Your task to perform on an android device: turn pop-ups on in chrome Image 0: 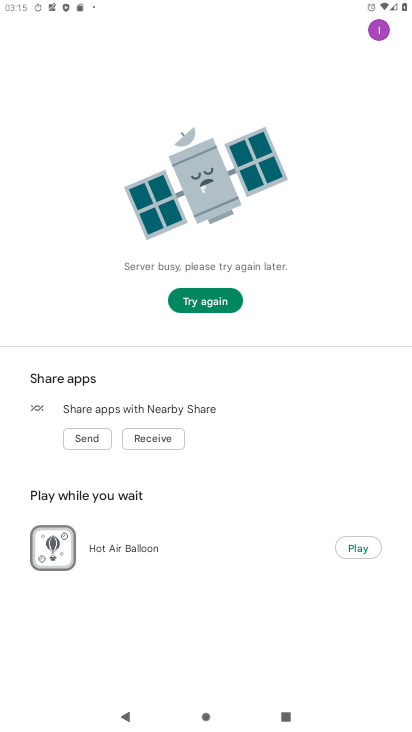
Step 0: press home button
Your task to perform on an android device: turn pop-ups on in chrome Image 1: 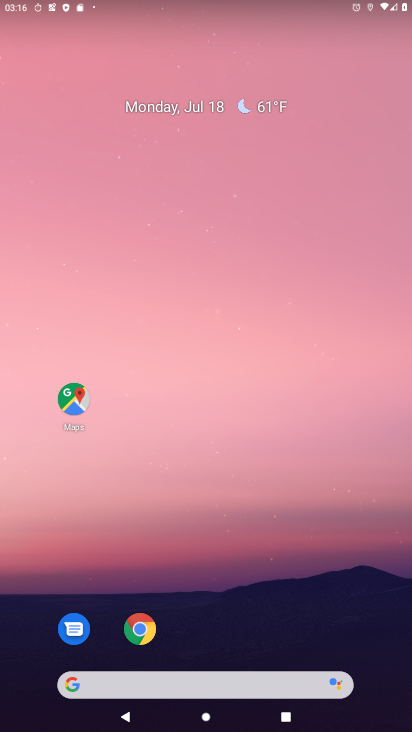
Step 1: click (142, 629)
Your task to perform on an android device: turn pop-ups on in chrome Image 2: 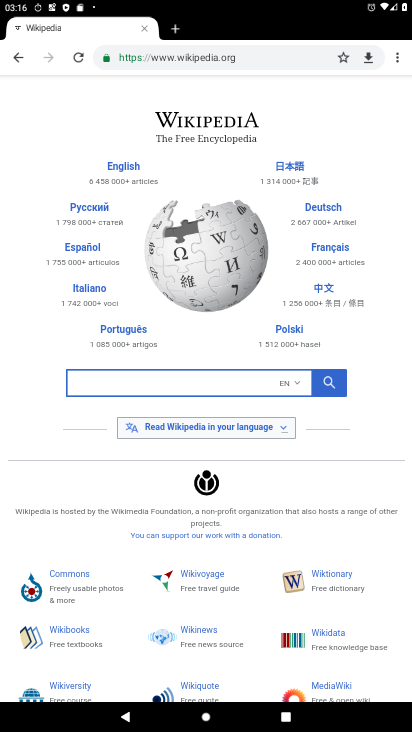
Step 2: click (401, 56)
Your task to perform on an android device: turn pop-ups on in chrome Image 3: 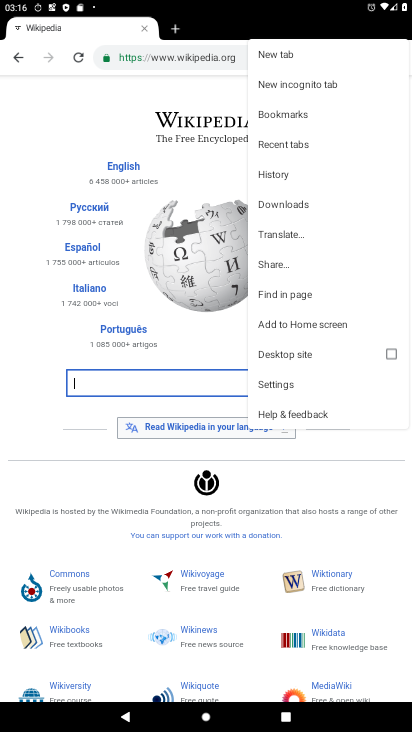
Step 3: click (286, 384)
Your task to perform on an android device: turn pop-ups on in chrome Image 4: 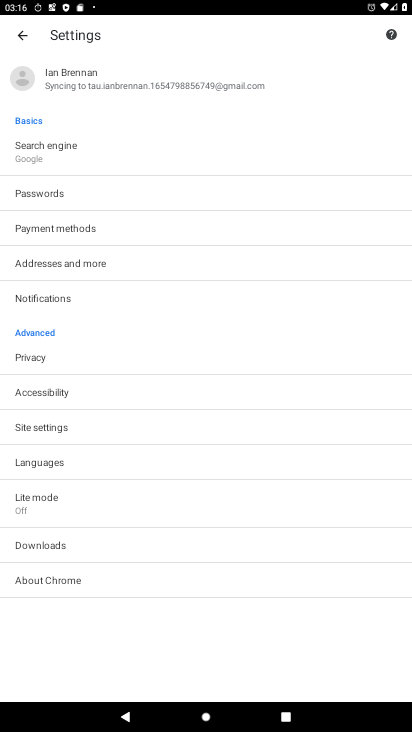
Step 4: click (56, 424)
Your task to perform on an android device: turn pop-ups on in chrome Image 5: 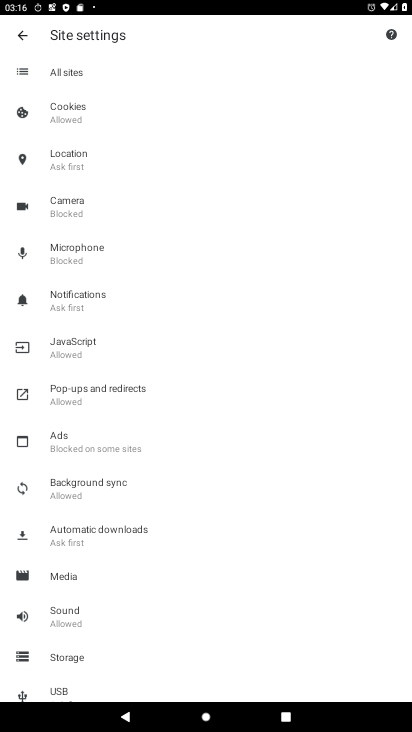
Step 5: click (88, 397)
Your task to perform on an android device: turn pop-ups on in chrome Image 6: 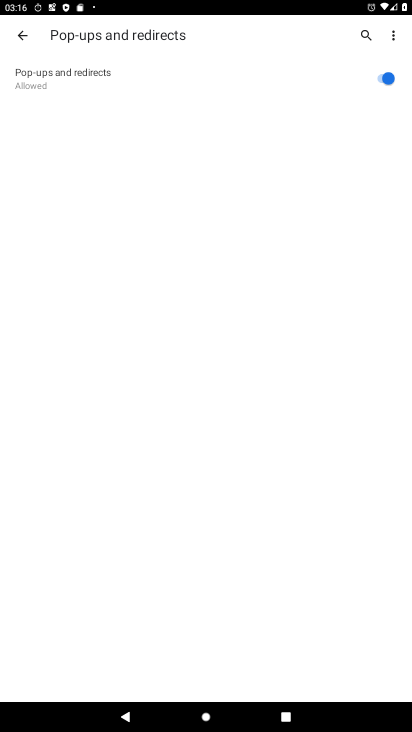
Step 6: task complete